Your task to perform on an android device: turn off javascript in the chrome app Image 0: 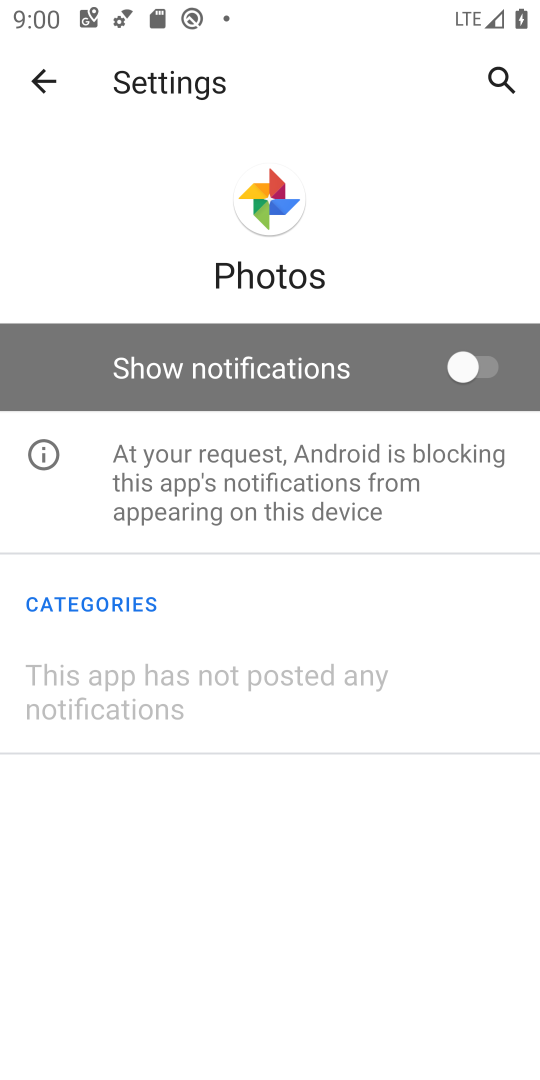
Step 0: press home button
Your task to perform on an android device: turn off javascript in the chrome app Image 1: 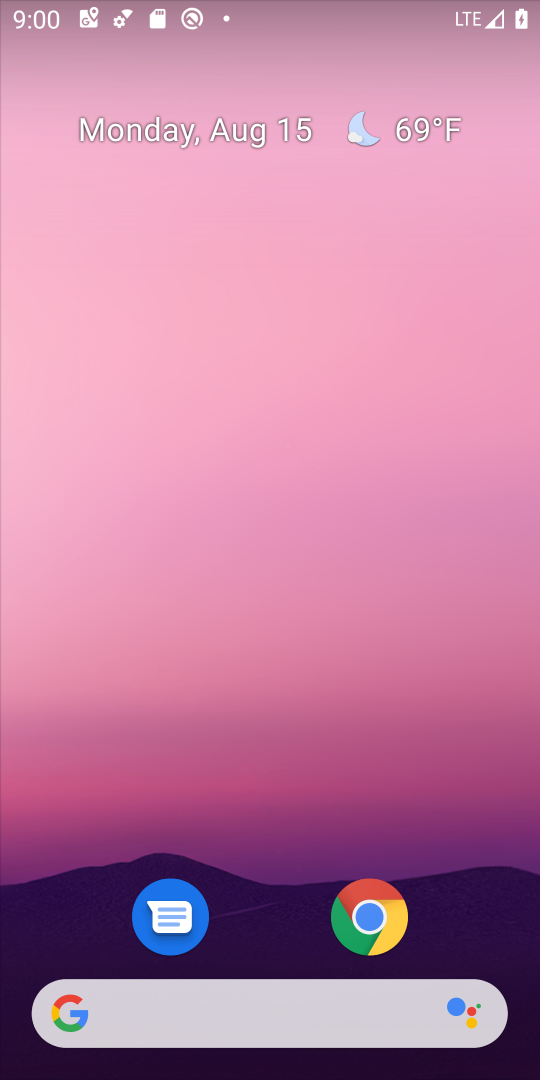
Step 1: click (381, 916)
Your task to perform on an android device: turn off javascript in the chrome app Image 2: 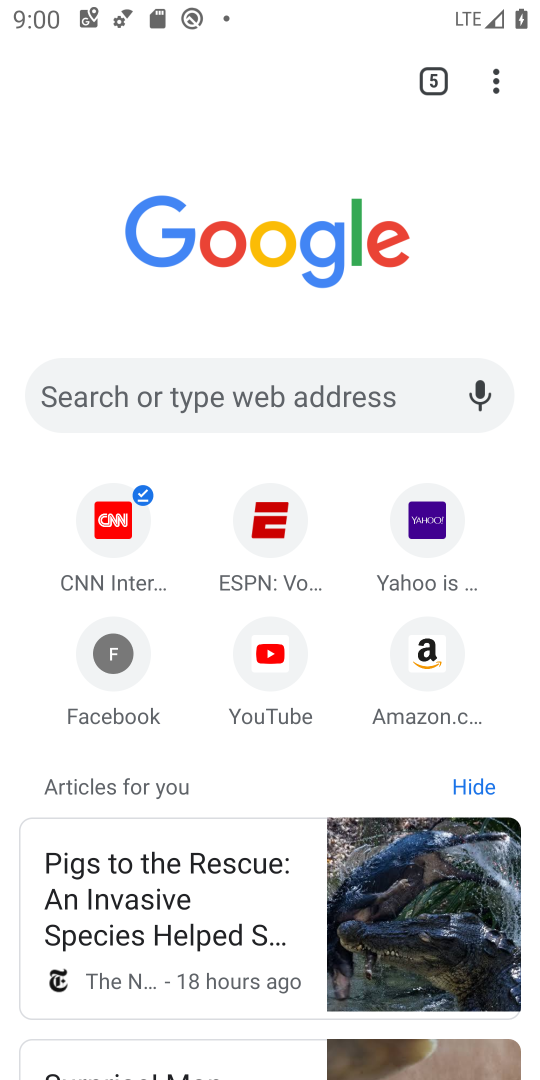
Step 2: click (494, 86)
Your task to perform on an android device: turn off javascript in the chrome app Image 3: 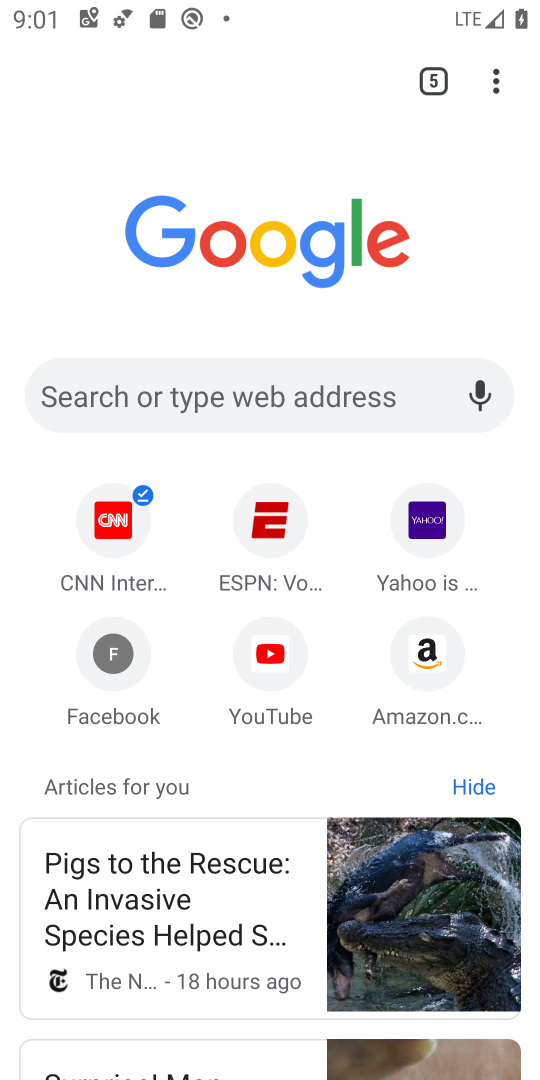
Step 3: click (494, 86)
Your task to perform on an android device: turn off javascript in the chrome app Image 4: 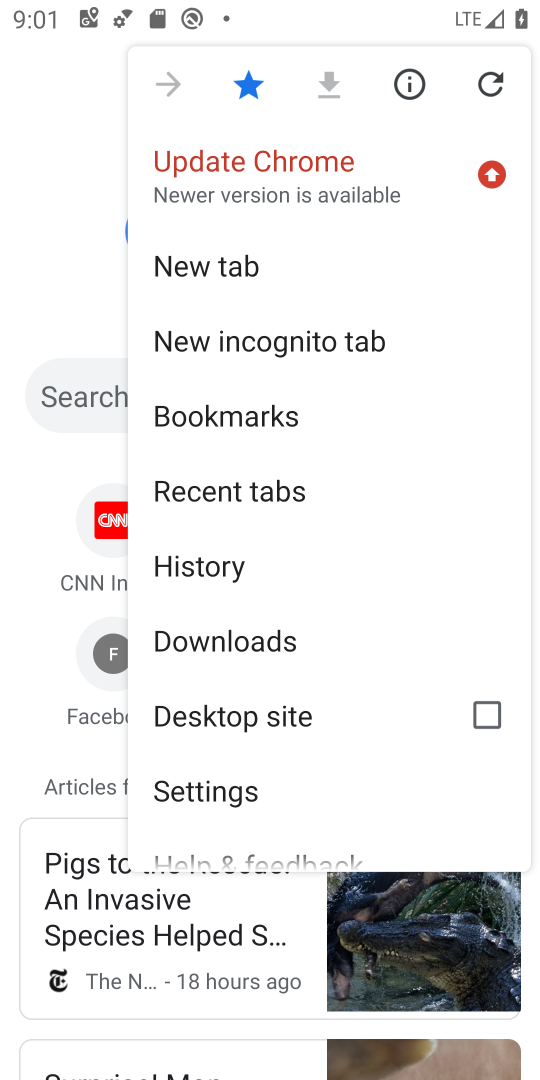
Step 4: click (240, 783)
Your task to perform on an android device: turn off javascript in the chrome app Image 5: 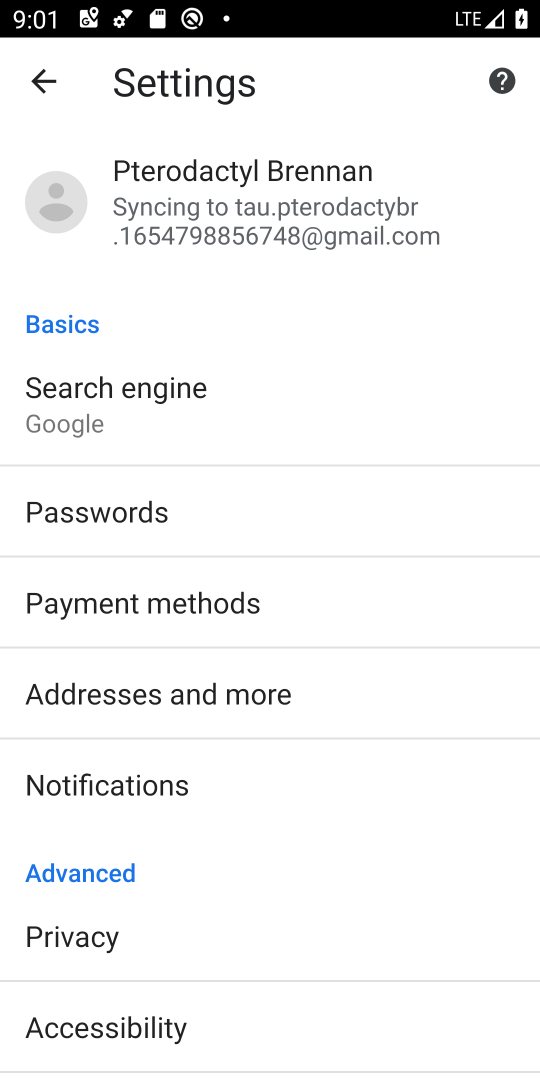
Step 5: drag from (233, 911) to (274, 305)
Your task to perform on an android device: turn off javascript in the chrome app Image 6: 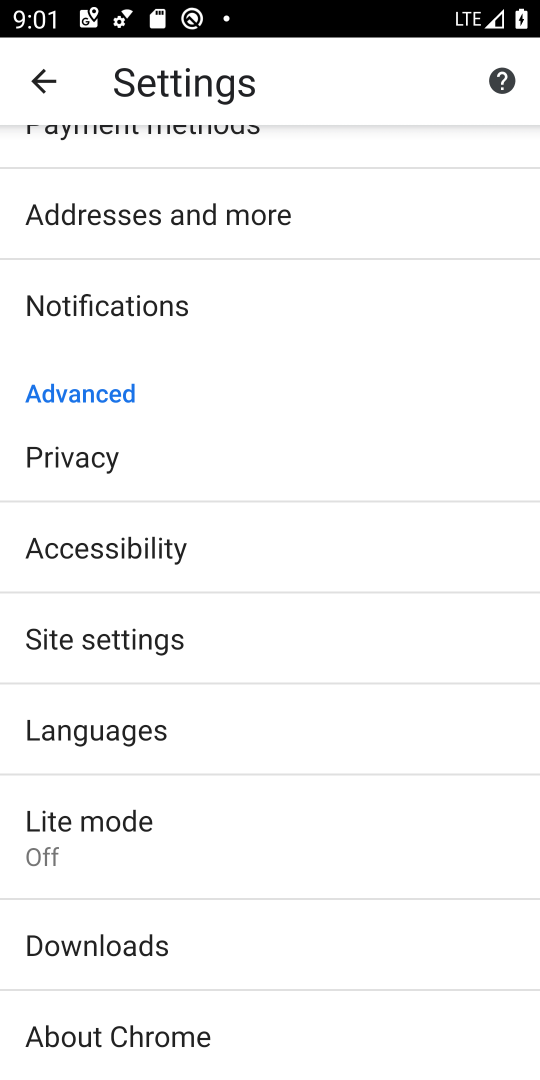
Step 6: click (192, 640)
Your task to perform on an android device: turn off javascript in the chrome app Image 7: 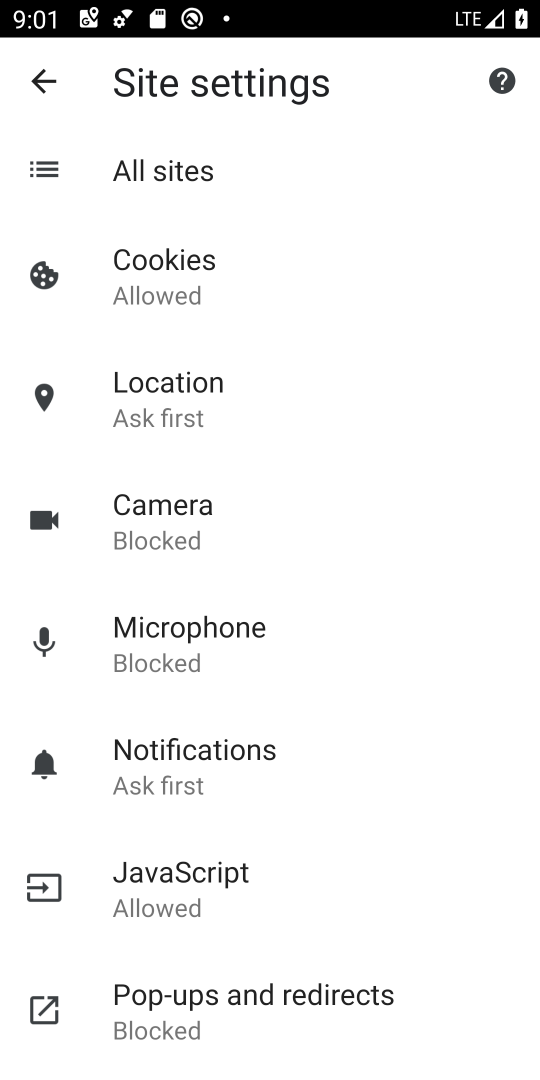
Step 7: click (192, 882)
Your task to perform on an android device: turn off javascript in the chrome app Image 8: 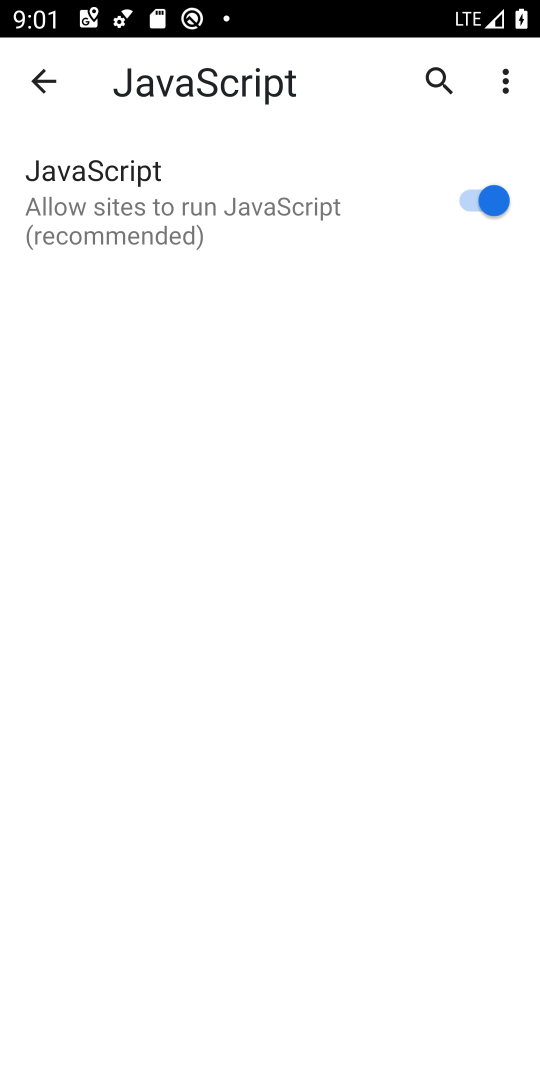
Step 8: click (482, 204)
Your task to perform on an android device: turn off javascript in the chrome app Image 9: 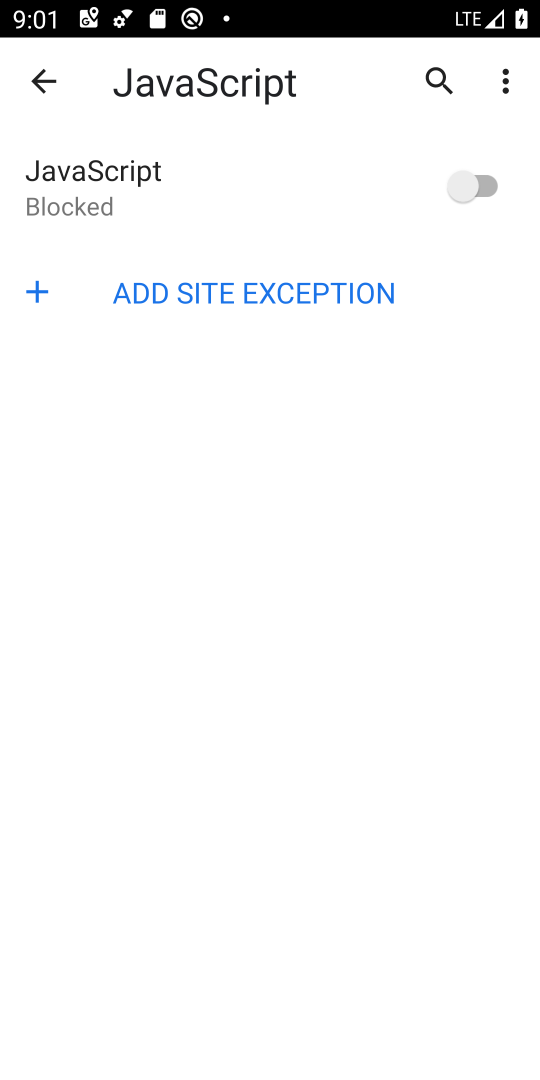
Step 9: task complete